Your task to perform on an android device: Go to Yahoo.com Image 0: 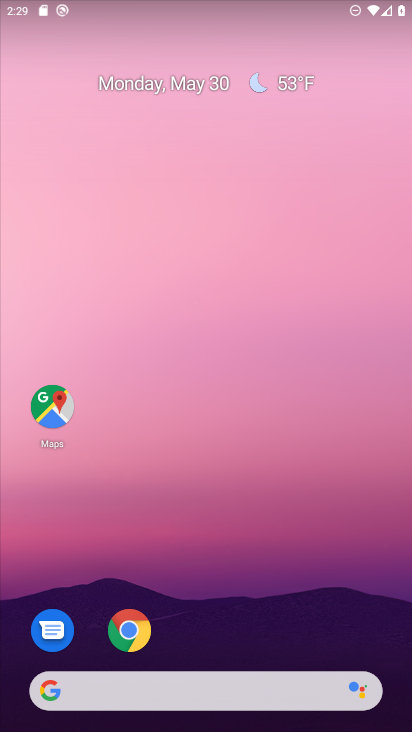
Step 0: click (127, 630)
Your task to perform on an android device: Go to Yahoo.com Image 1: 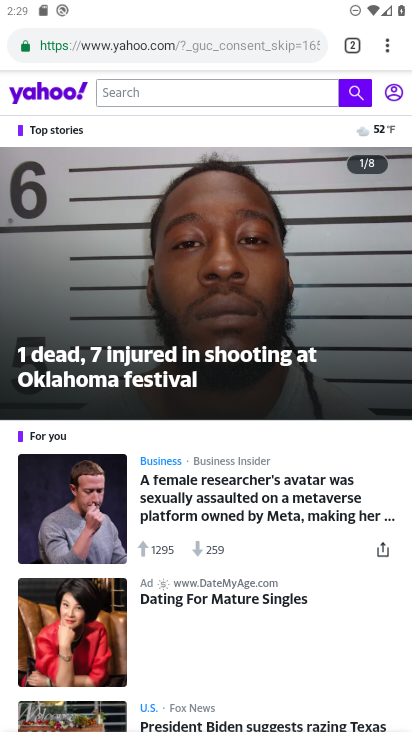
Step 1: task complete